Your task to perform on an android device: How do I get to the nearest Burger King? Image 0: 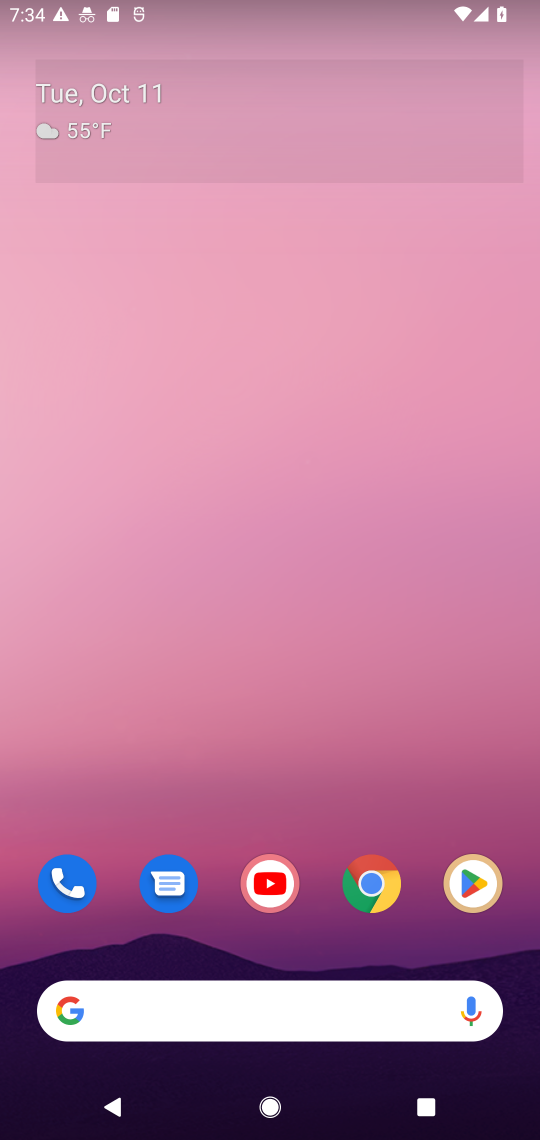
Step 0: drag from (305, 942) to (250, 24)
Your task to perform on an android device: How do I get to the nearest Burger King? Image 1: 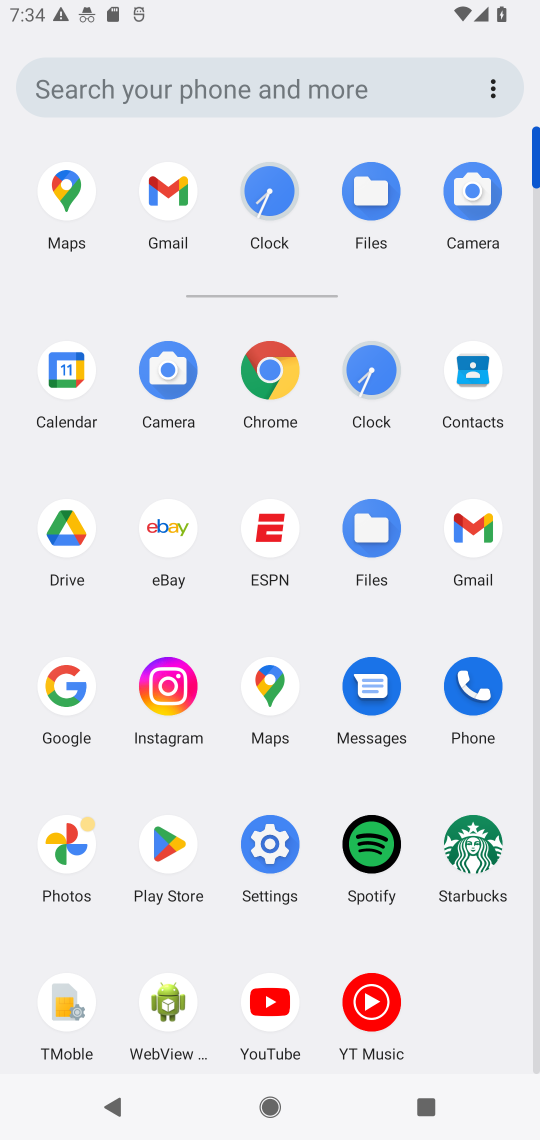
Step 1: click (273, 378)
Your task to perform on an android device: How do I get to the nearest Burger King? Image 2: 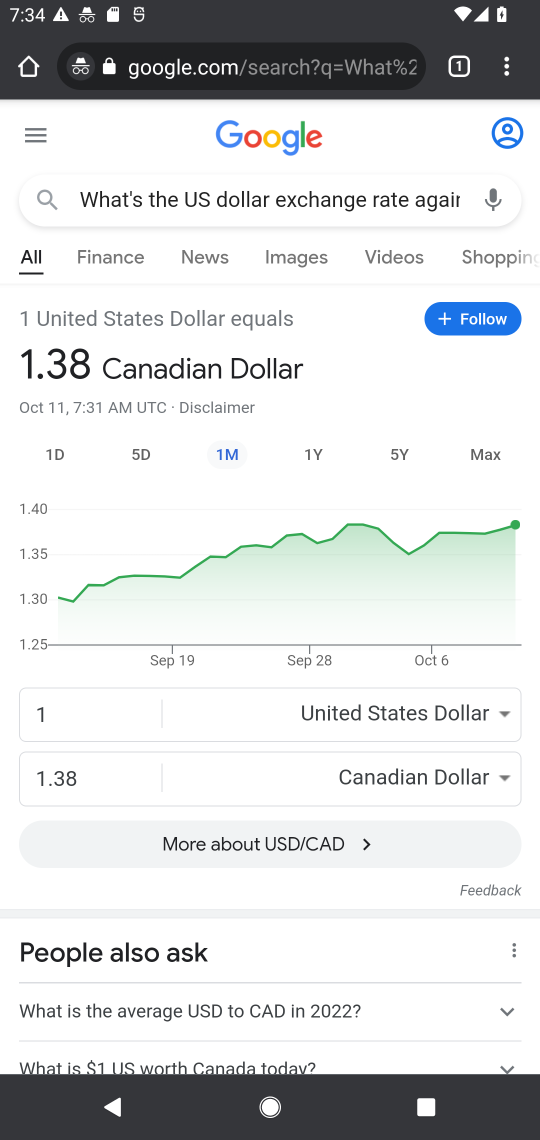
Step 2: click (334, 52)
Your task to perform on an android device: How do I get to the nearest Burger King? Image 3: 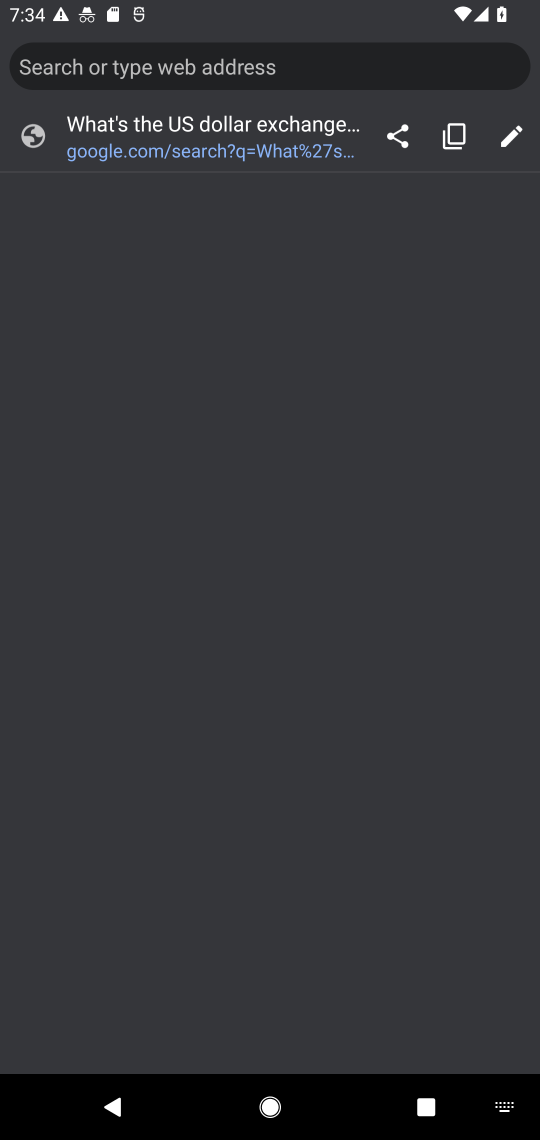
Step 3: type "How do I get to the nearest Burger King/"
Your task to perform on an android device: How do I get to the nearest Burger King? Image 4: 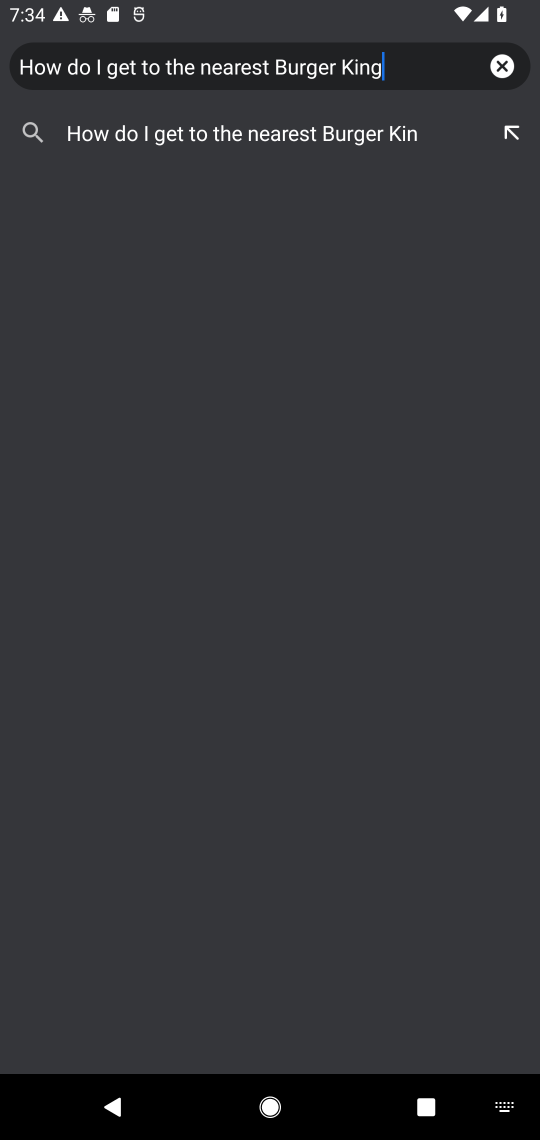
Step 4: press enter
Your task to perform on an android device: How do I get to the nearest Burger King? Image 5: 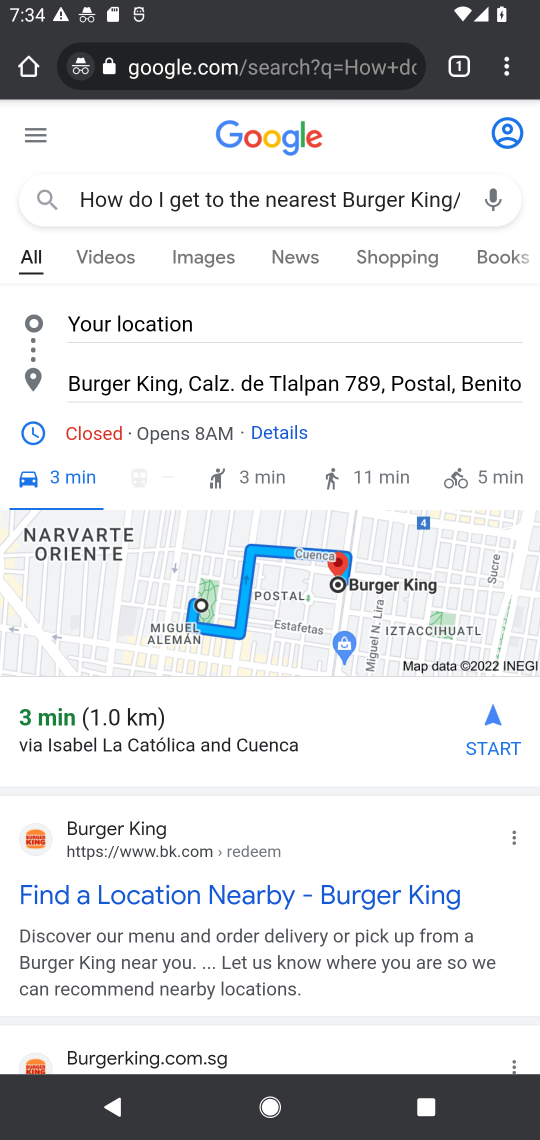
Step 5: task complete